Your task to perform on an android device: turn vacation reply on in the gmail app Image 0: 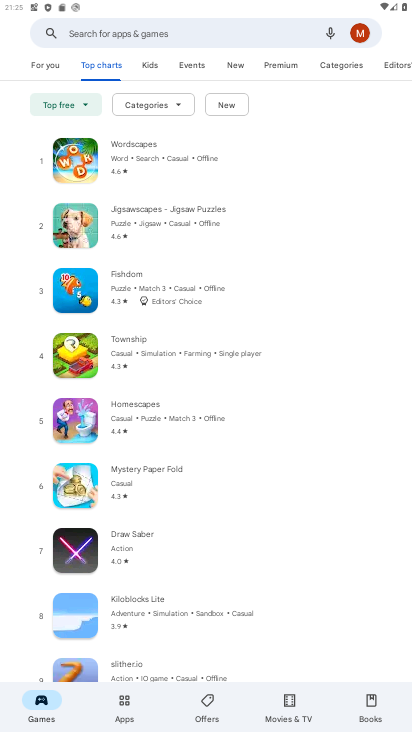
Step 0: press home button
Your task to perform on an android device: turn vacation reply on in the gmail app Image 1: 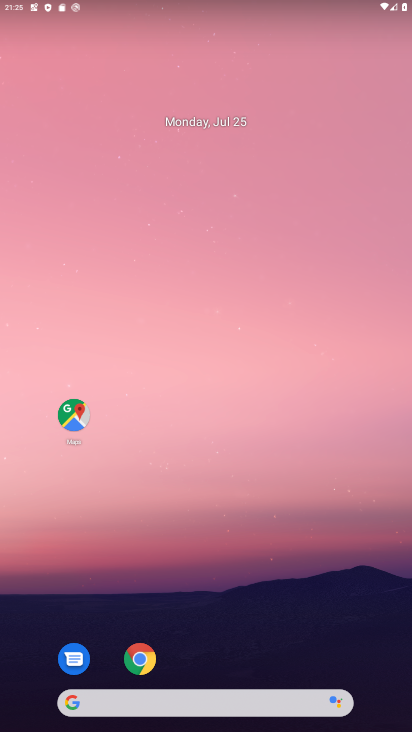
Step 1: drag from (203, 644) to (143, 137)
Your task to perform on an android device: turn vacation reply on in the gmail app Image 2: 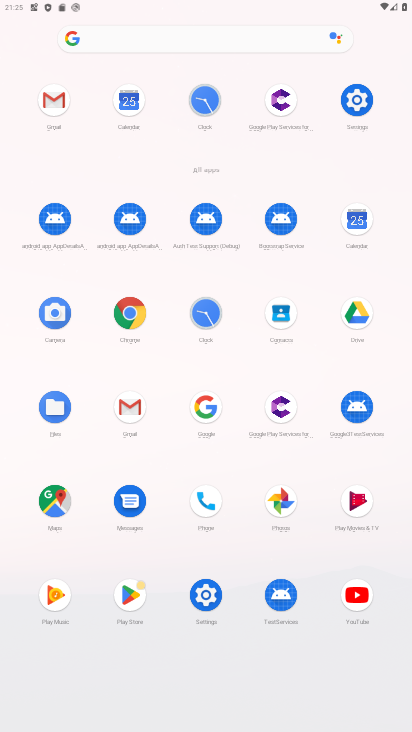
Step 2: click (68, 107)
Your task to perform on an android device: turn vacation reply on in the gmail app Image 3: 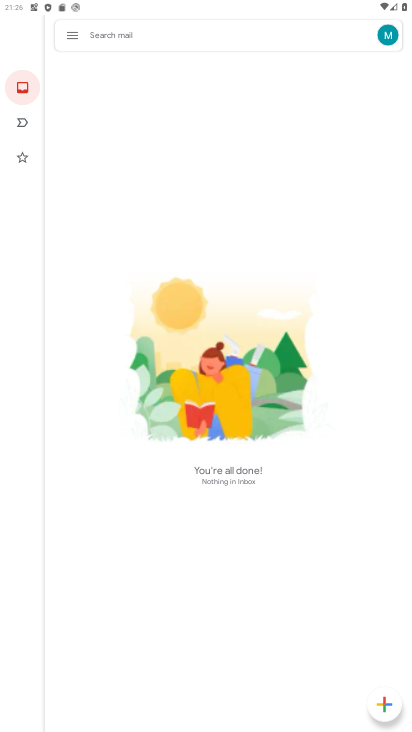
Step 3: click (64, 34)
Your task to perform on an android device: turn vacation reply on in the gmail app Image 4: 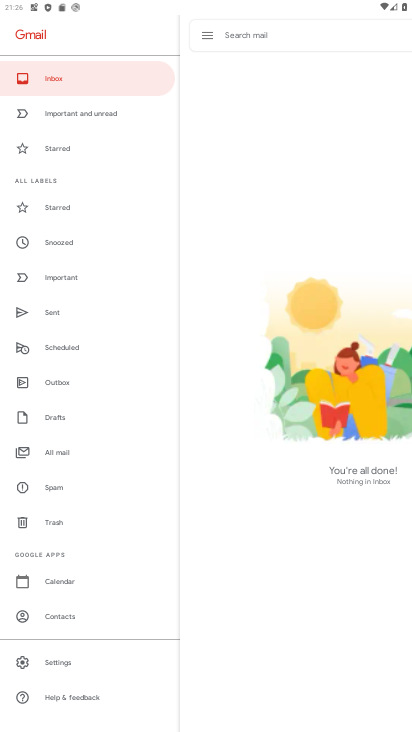
Step 4: click (86, 664)
Your task to perform on an android device: turn vacation reply on in the gmail app Image 5: 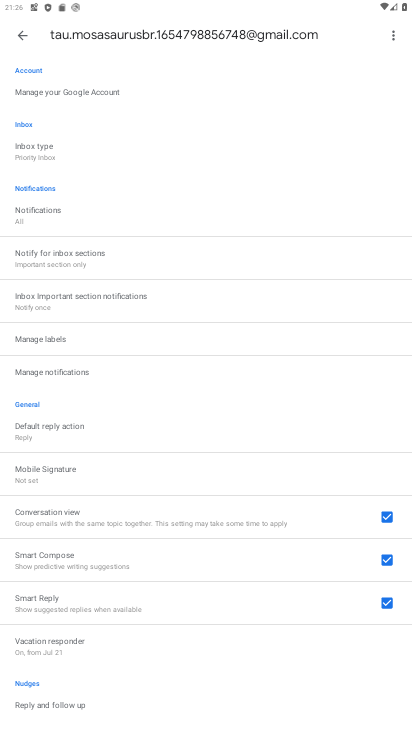
Step 5: click (181, 650)
Your task to perform on an android device: turn vacation reply on in the gmail app Image 6: 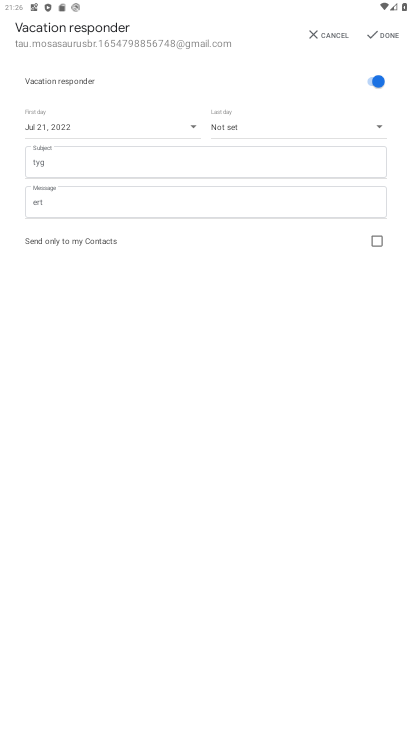
Step 6: task complete